Your task to perform on an android device: Open sound settings Image 0: 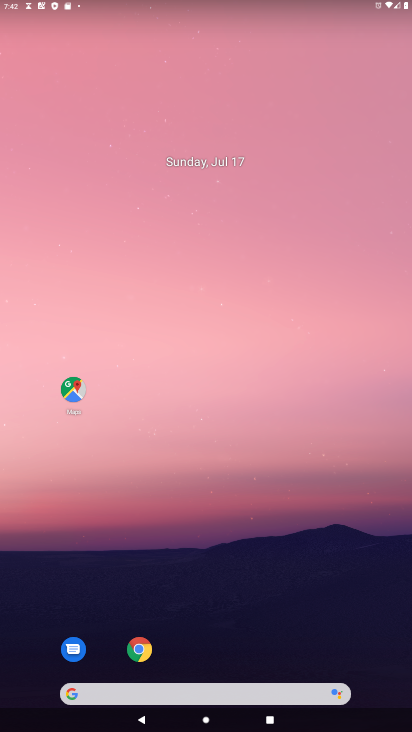
Step 0: drag from (191, 606) to (400, 150)
Your task to perform on an android device: Open sound settings Image 1: 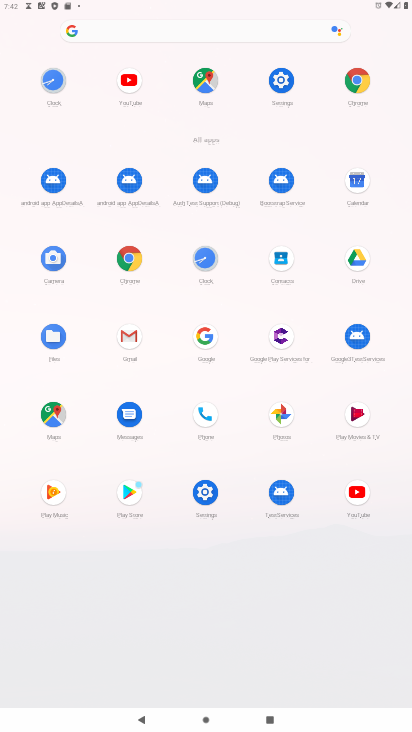
Step 1: click (205, 500)
Your task to perform on an android device: Open sound settings Image 2: 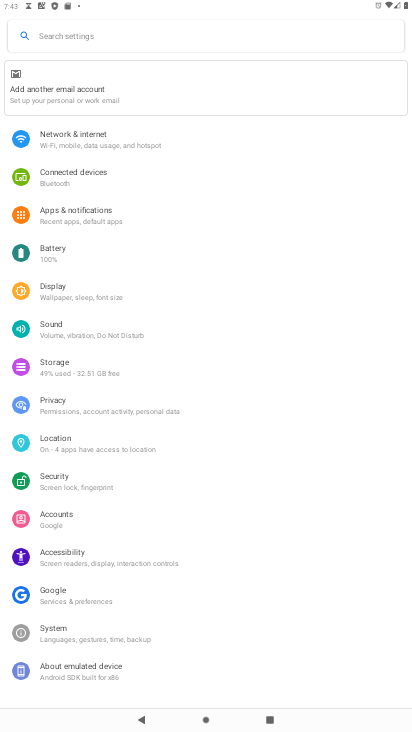
Step 2: click (85, 334)
Your task to perform on an android device: Open sound settings Image 3: 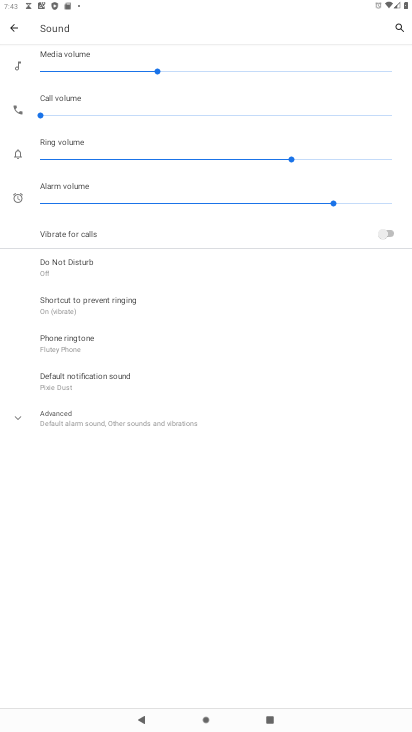
Step 3: task complete